Your task to perform on an android device: turn off airplane mode Image 0: 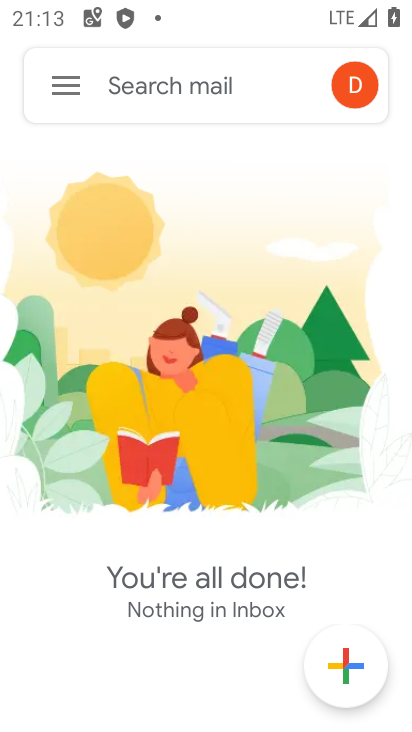
Step 0: click (58, 82)
Your task to perform on an android device: turn off airplane mode Image 1: 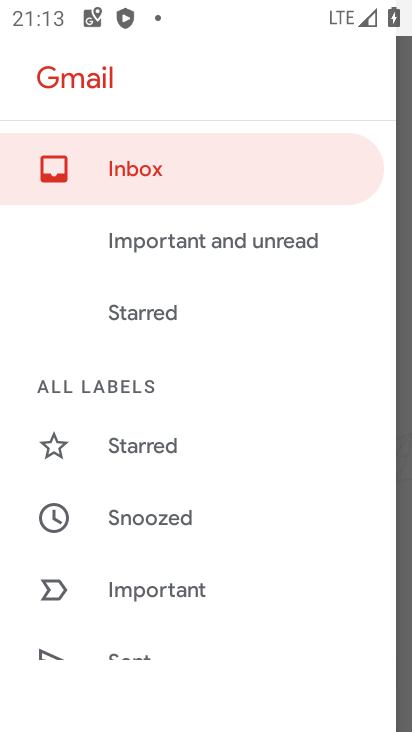
Step 1: drag from (248, 489) to (215, 333)
Your task to perform on an android device: turn off airplane mode Image 2: 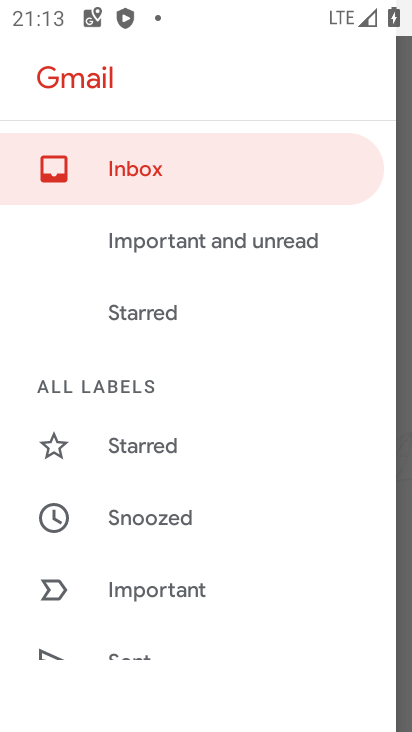
Step 2: click (402, 208)
Your task to perform on an android device: turn off airplane mode Image 3: 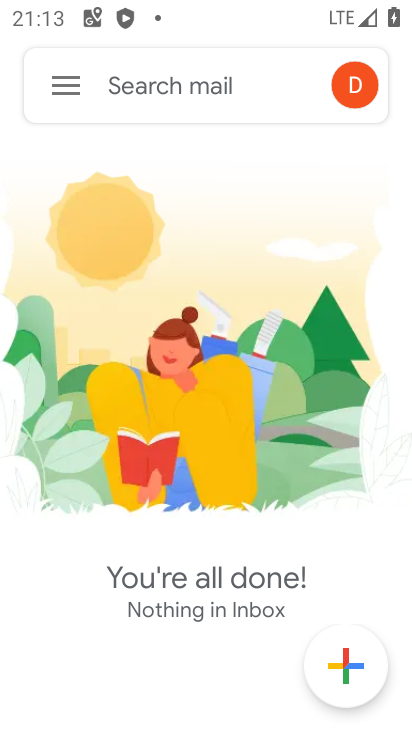
Step 3: click (58, 88)
Your task to perform on an android device: turn off airplane mode Image 4: 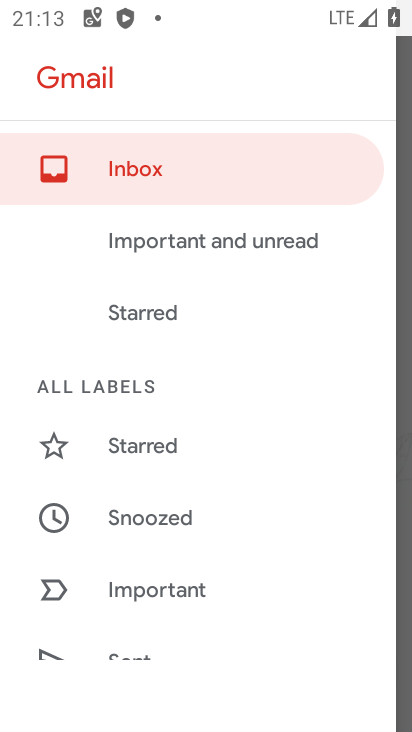
Step 4: task complete